Your task to perform on an android device: turn notification dots on Image 0: 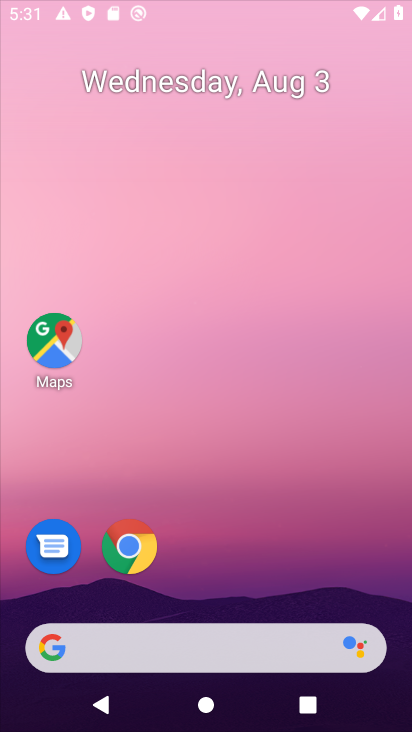
Step 0: press home button
Your task to perform on an android device: turn notification dots on Image 1: 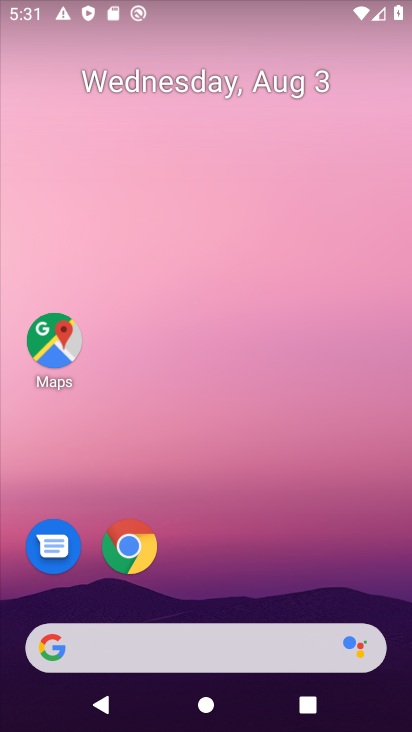
Step 1: drag from (249, 607) to (305, 162)
Your task to perform on an android device: turn notification dots on Image 2: 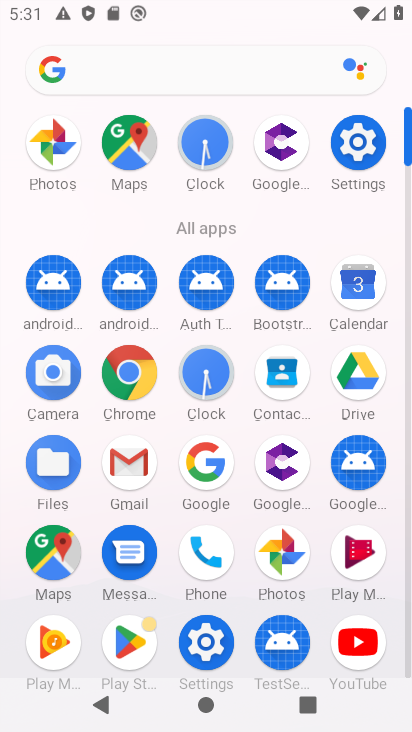
Step 2: click (339, 158)
Your task to perform on an android device: turn notification dots on Image 3: 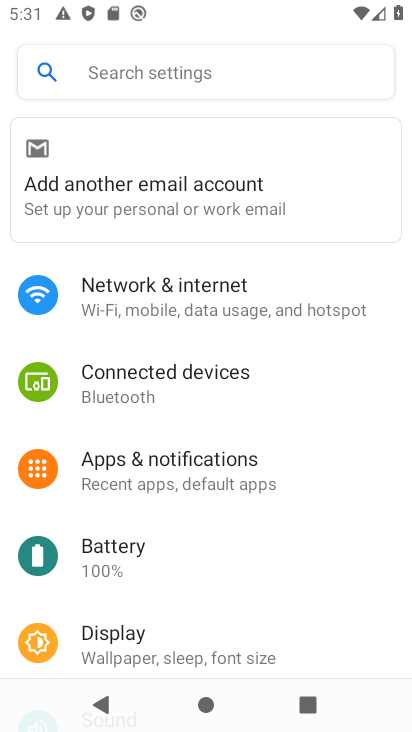
Step 3: click (186, 454)
Your task to perform on an android device: turn notification dots on Image 4: 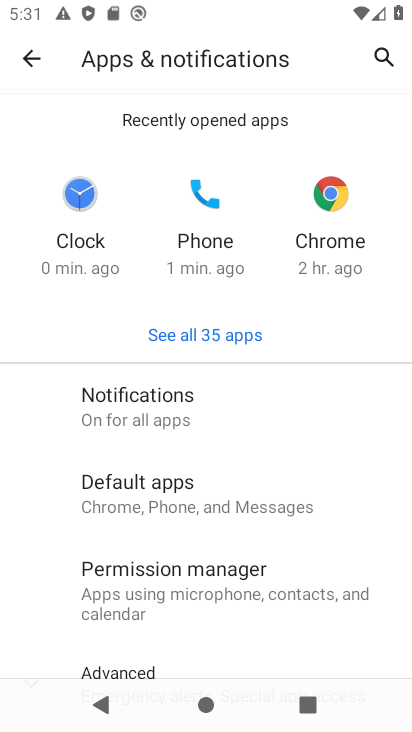
Step 4: drag from (262, 625) to (237, 315)
Your task to perform on an android device: turn notification dots on Image 5: 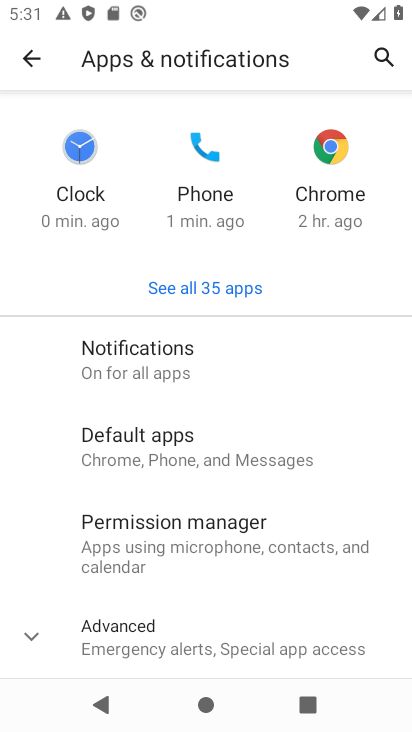
Step 5: click (150, 364)
Your task to perform on an android device: turn notification dots on Image 6: 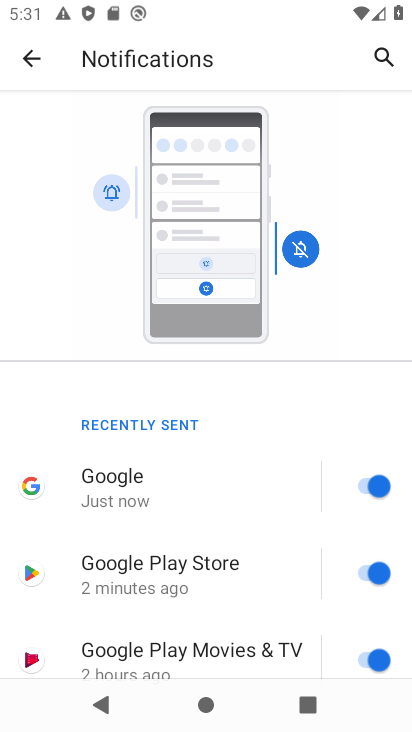
Step 6: drag from (251, 602) to (291, 170)
Your task to perform on an android device: turn notification dots on Image 7: 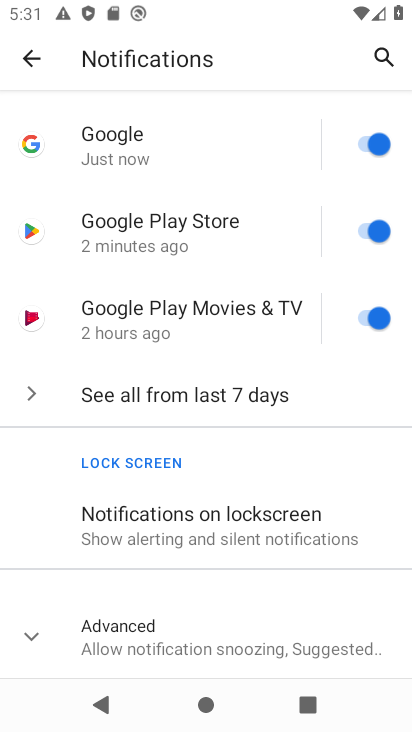
Step 7: click (143, 645)
Your task to perform on an android device: turn notification dots on Image 8: 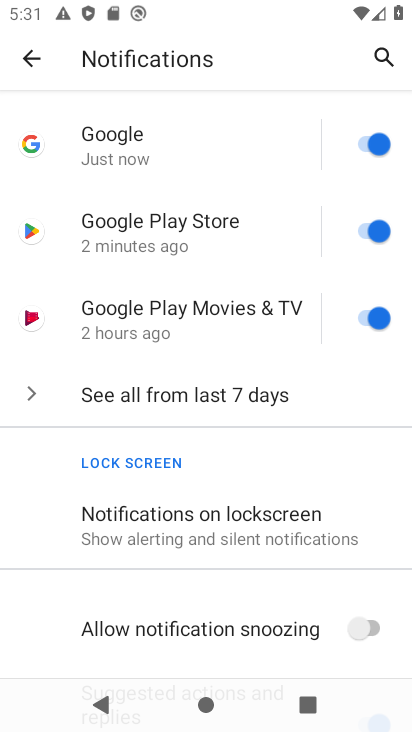
Step 8: task complete